Your task to perform on an android device: Open the phone app and click the voicemail tab. Image 0: 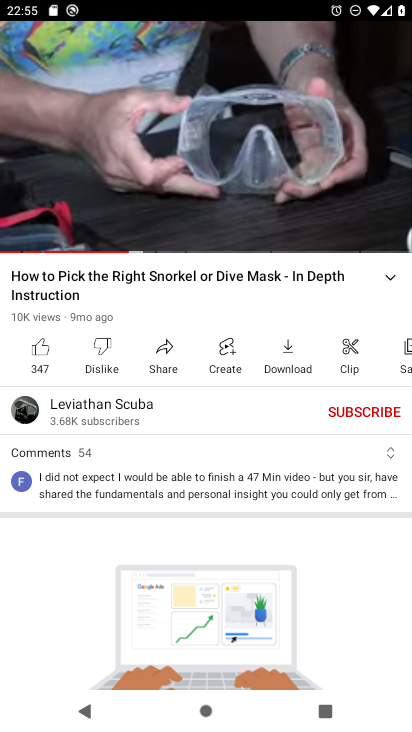
Step 0: press home button
Your task to perform on an android device: Open the phone app and click the voicemail tab. Image 1: 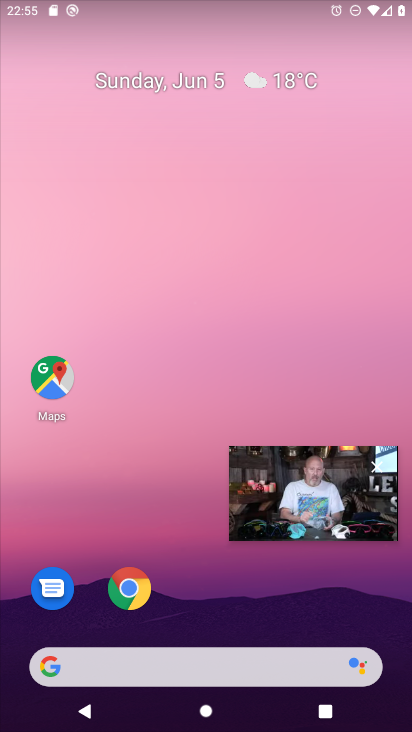
Step 1: drag from (316, 590) to (299, 144)
Your task to perform on an android device: Open the phone app and click the voicemail tab. Image 2: 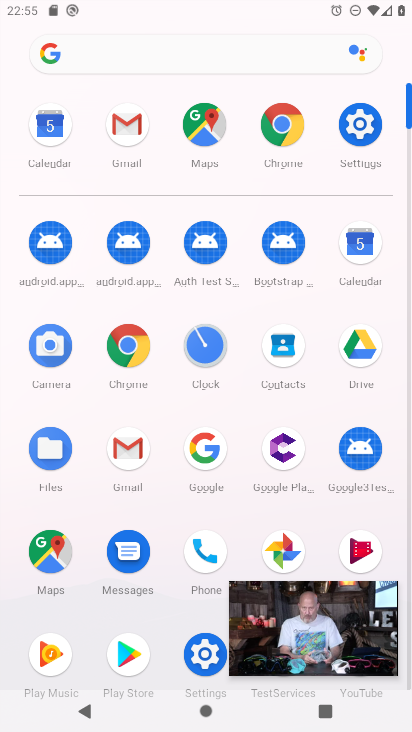
Step 2: drag from (300, 589) to (185, 705)
Your task to perform on an android device: Open the phone app and click the voicemail tab. Image 3: 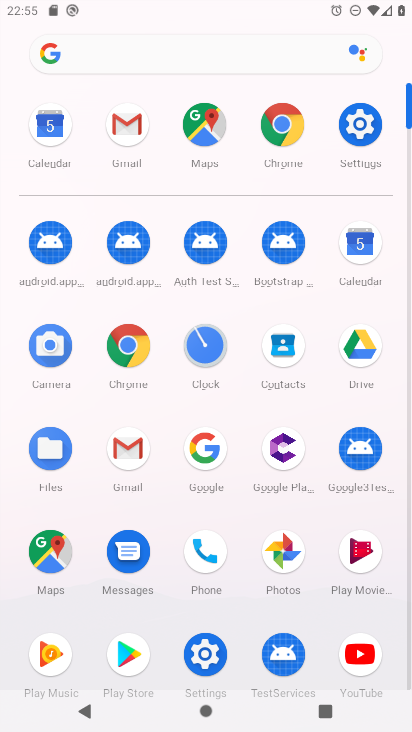
Step 3: click (204, 544)
Your task to perform on an android device: Open the phone app and click the voicemail tab. Image 4: 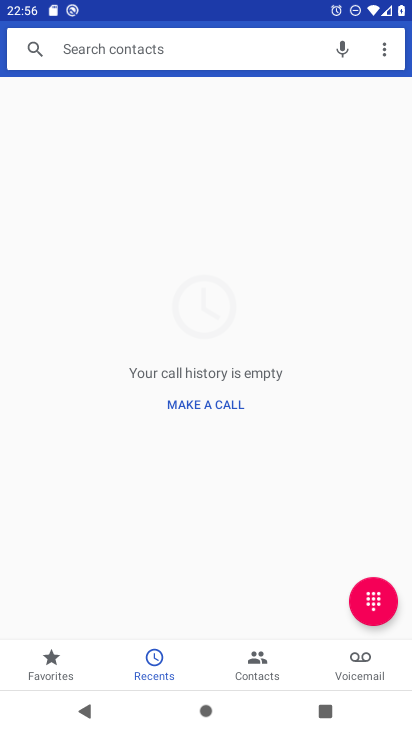
Step 4: click (347, 666)
Your task to perform on an android device: Open the phone app and click the voicemail tab. Image 5: 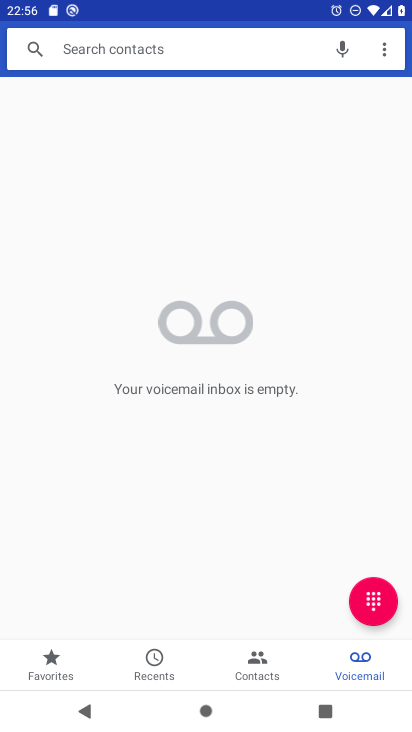
Step 5: task complete